Your task to perform on an android device: Open settings on Google Maps Image 0: 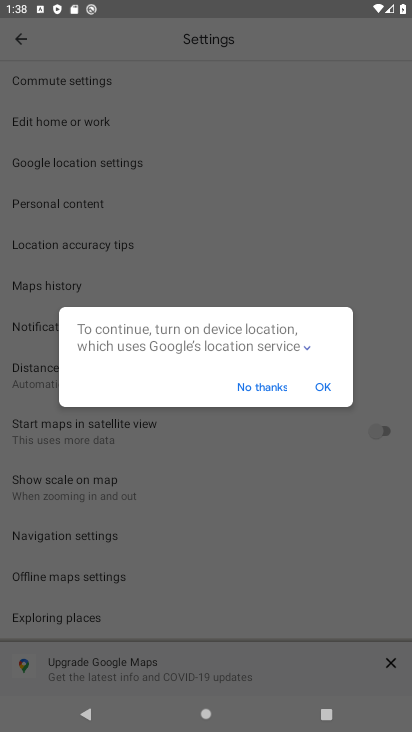
Step 0: press home button
Your task to perform on an android device: Open settings on Google Maps Image 1: 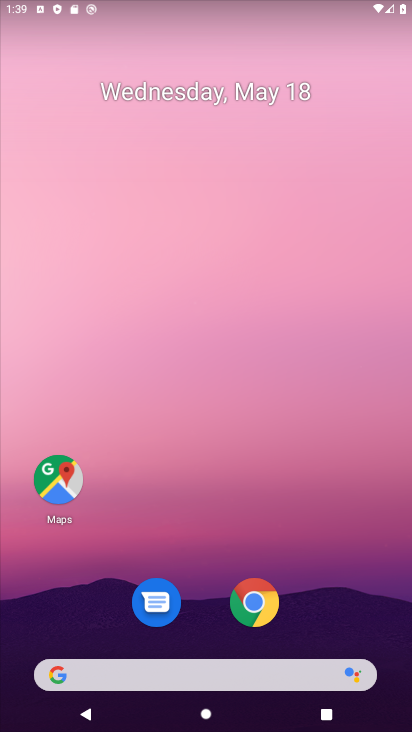
Step 1: drag from (150, 716) to (213, 211)
Your task to perform on an android device: Open settings on Google Maps Image 2: 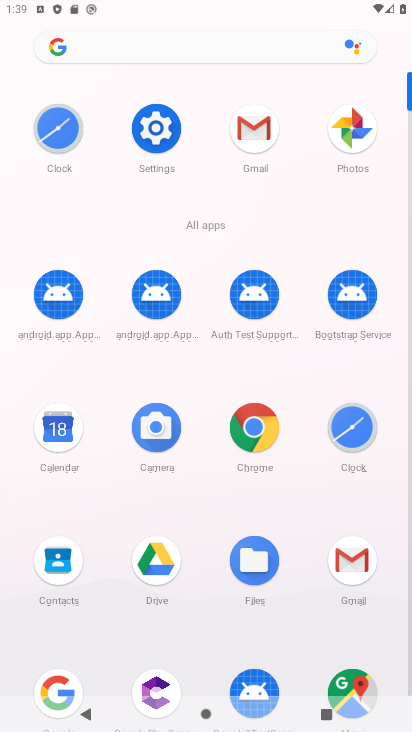
Step 2: click (353, 675)
Your task to perform on an android device: Open settings on Google Maps Image 3: 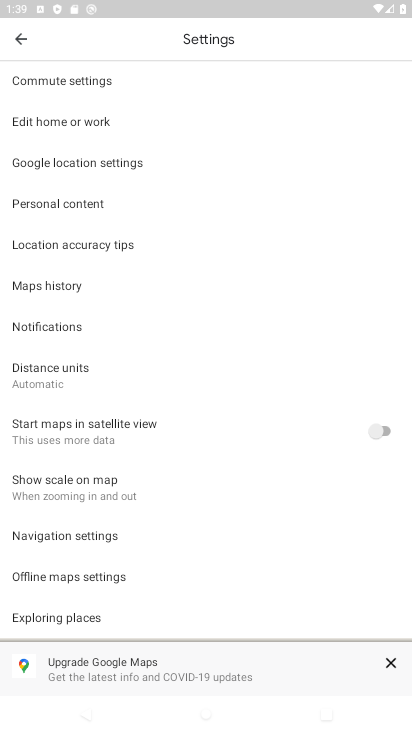
Step 3: task complete